Your task to perform on an android device: turn off data saver in the chrome app Image 0: 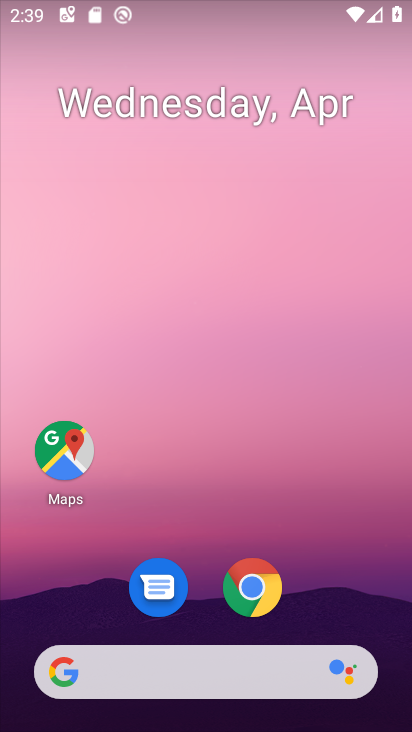
Step 0: drag from (343, 512) to (218, 30)
Your task to perform on an android device: turn off data saver in the chrome app Image 1: 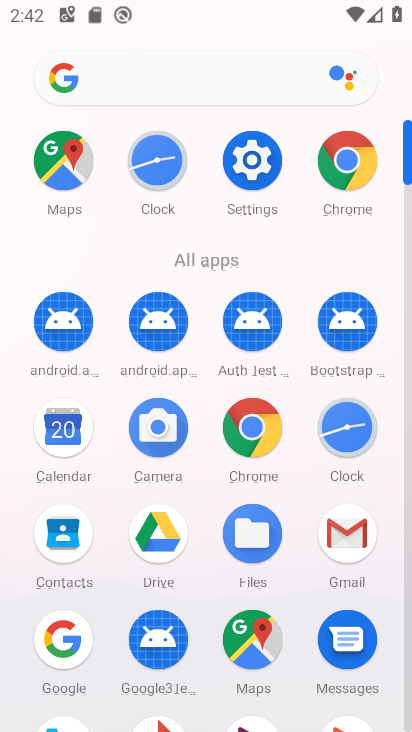
Step 1: click (272, 431)
Your task to perform on an android device: turn off data saver in the chrome app Image 2: 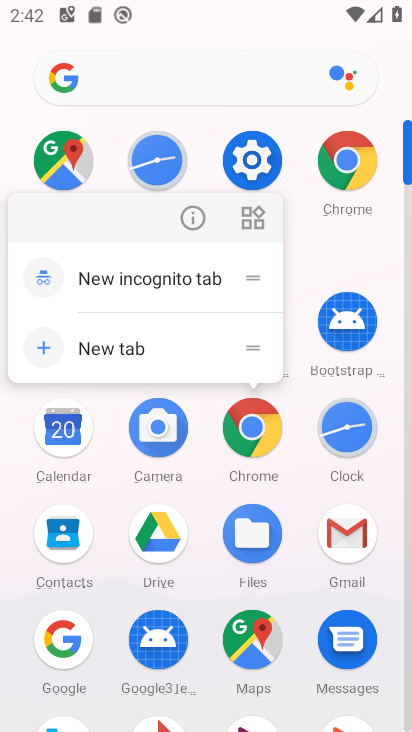
Step 2: click (260, 431)
Your task to perform on an android device: turn off data saver in the chrome app Image 3: 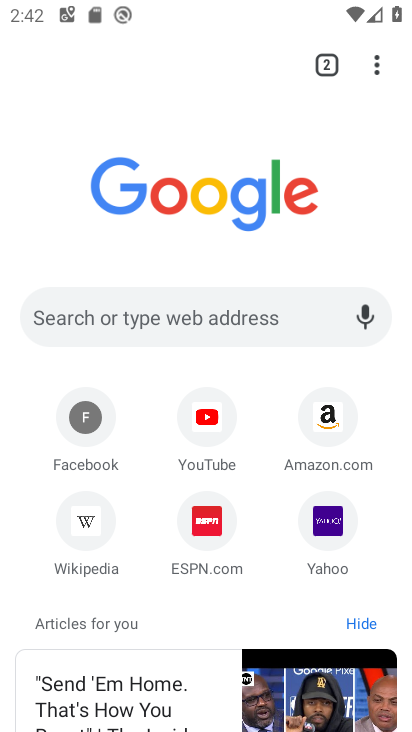
Step 3: click (376, 65)
Your task to perform on an android device: turn off data saver in the chrome app Image 4: 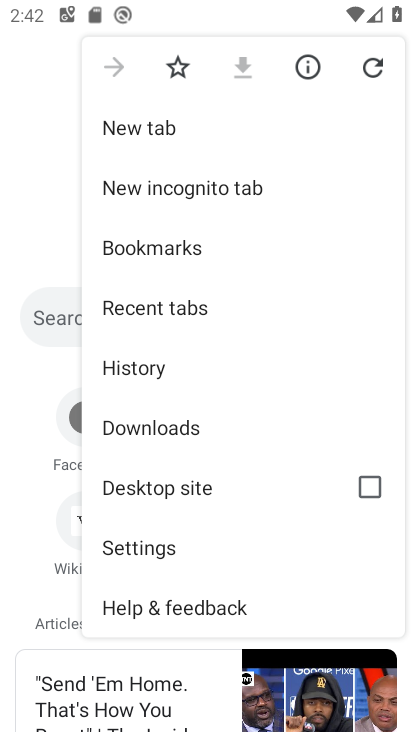
Step 4: click (223, 375)
Your task to perform on an android device: turn off data saver in the chrome app Image 5: 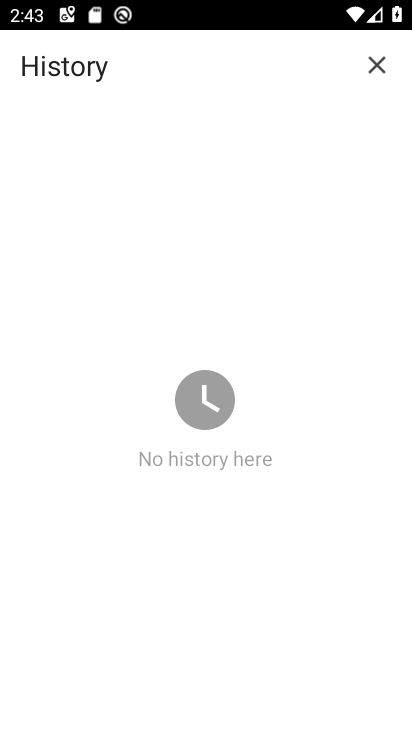
Step 5: press back button
Your task to perform on an android device: turn off data saver in the chrome app Image 6: 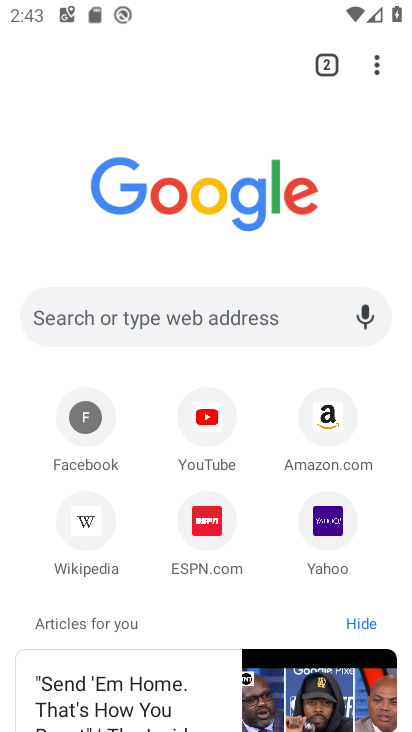
Step 6: click (375, 58)
Your task to perform on an android device: turn off data saver in the chrome app Image 7: 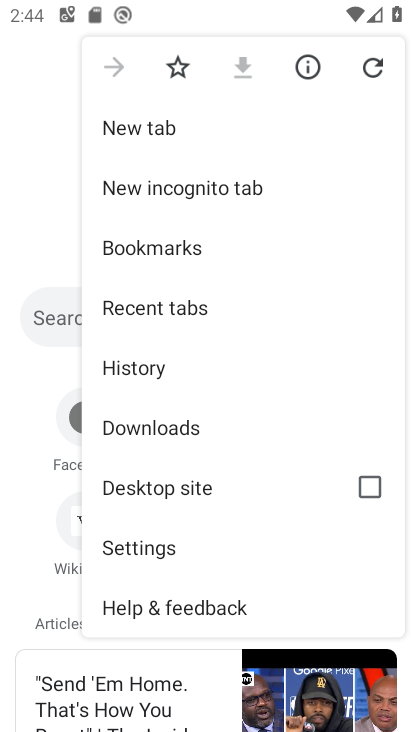
Step 7: click (151, 559)
Your task to perform on an android device: turn off data saver in the chrome app Image 8: 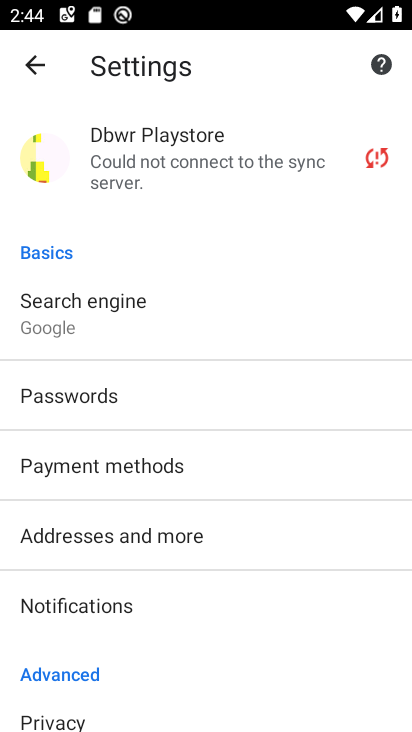
Step 8: drag from (200, 594) to (210, 140)
Your task to perform on an android device: turn off data saver in the chrome app Image 9: 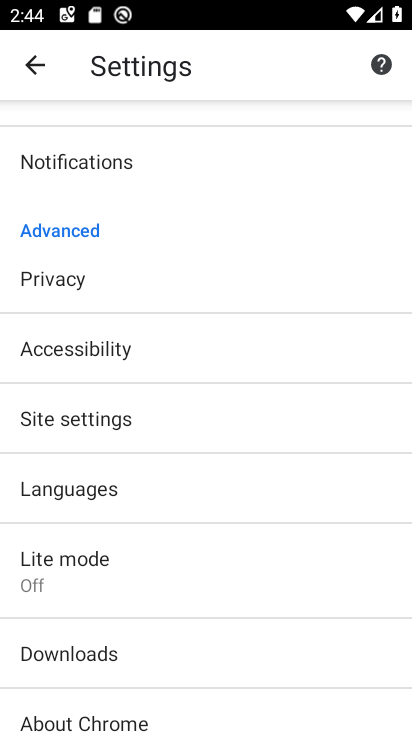
Step 9: click (104, 581)
Your task to perform on an android device: turn off data saver in the chrome app Image 10: 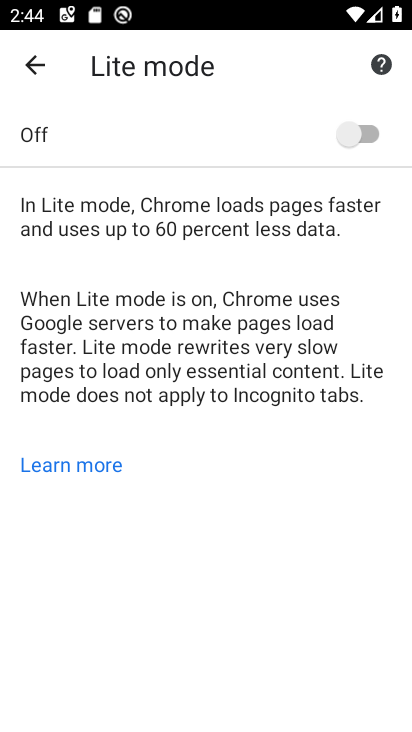
Step 10: task complete